Your task to perform on an android device: Search for pizza restaurants on Maps Image 0: 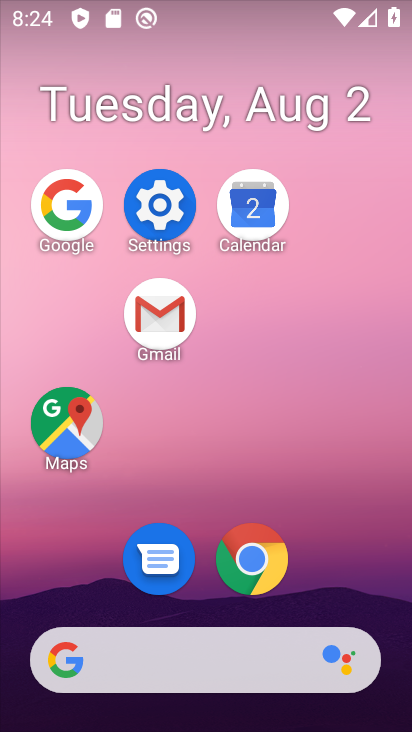
Step 0: click (54, 419)
Your task to perform on an android device: Search for pizza restaurants on Maps Image 1: 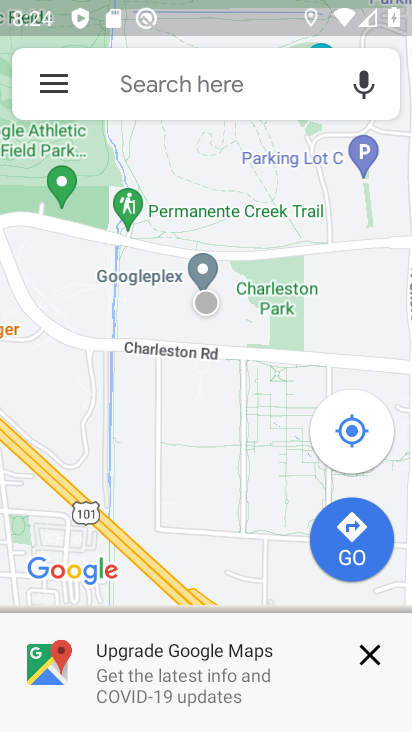
Step 1: click (190, 73)
Your task to perform on an android device: Search for pizza restaurants on Maps Image 2: 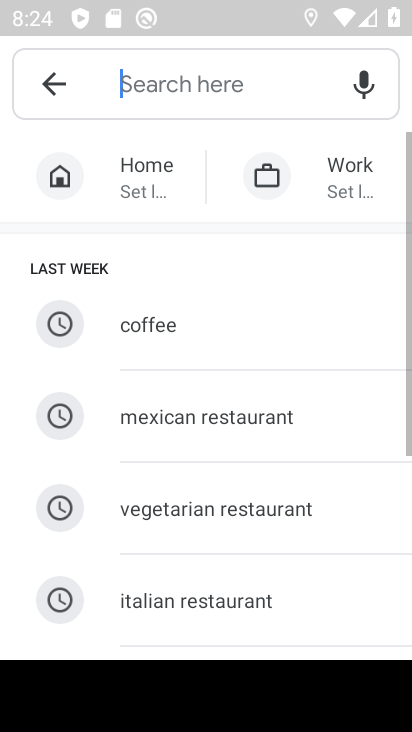
Step 2: drag from (320, 562) to (326, 353)
Your task to perform on an android device: Search for pizza restaurants on Maps Image 3: 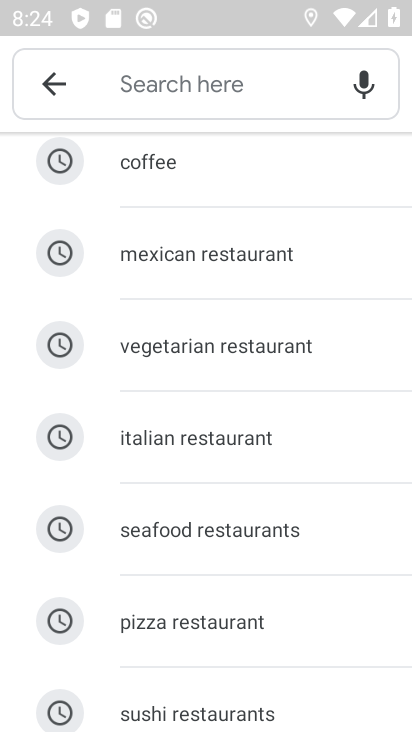
Step 3: click (229, 607)
Your task to perform on an android device: Search for pizza restaurants on Maps Image 4: 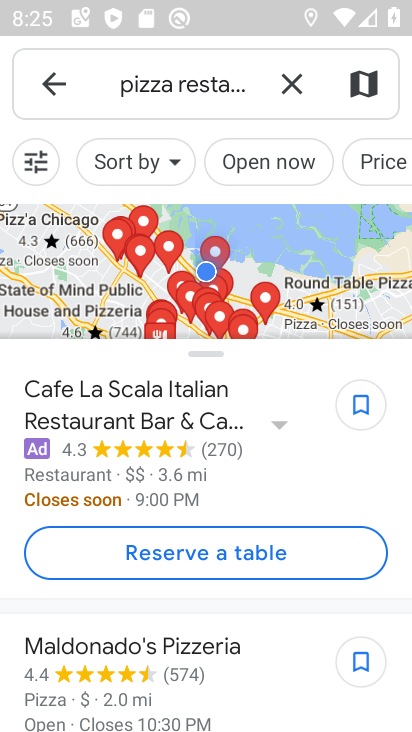
Step 4: task complete